Your task to perform on an android device: open a bookmark in the chrome app Image 0: 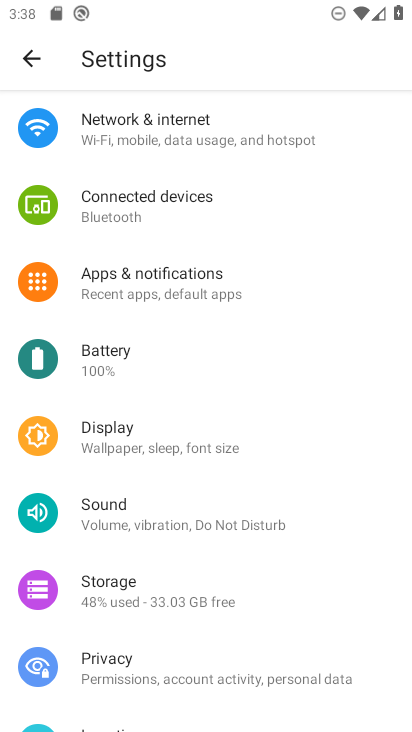
Step 0: press home button
Your task to perform on an android device: open a bookmark in the chrome app Image 1: 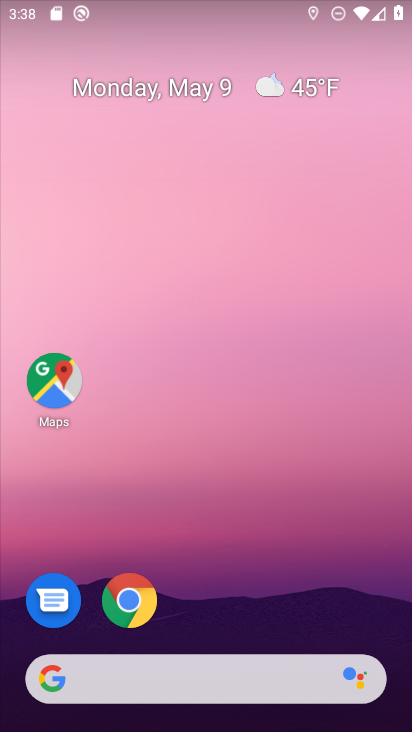
Step 1: click (133, 604)
Your task to perform on an android device: open a bookmark in the chrome app Image 2: 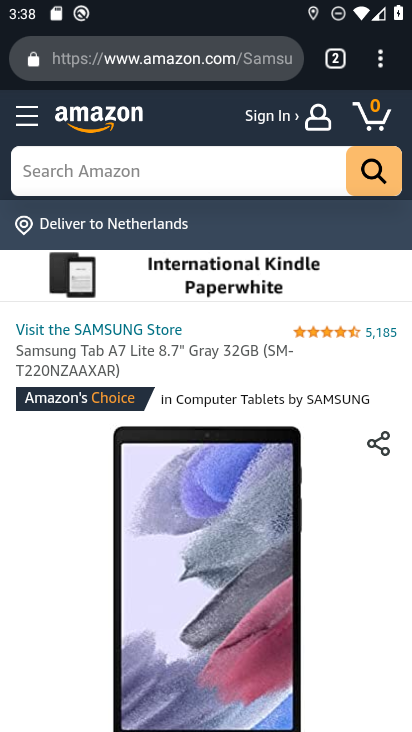
Step 2: click (393, 61)
Your task to perform on an android device: open a bookmark in the chrome app Image 3: 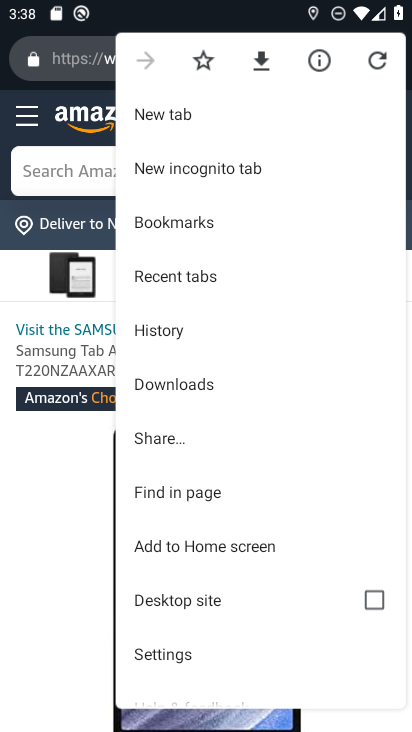
Step 3: click (194, 233)
Your task to perform on an android device: open a bookmark in the chrome app Image 4: 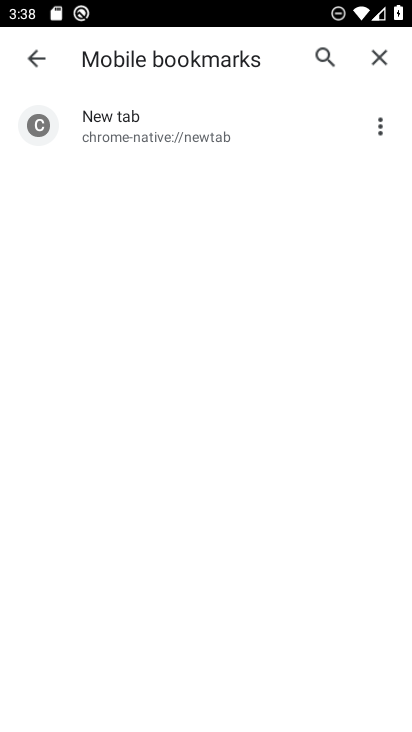
Step 4: click (187, 137)
Your task to perform on an android device: open a bookmark in the chrome app Image 5: 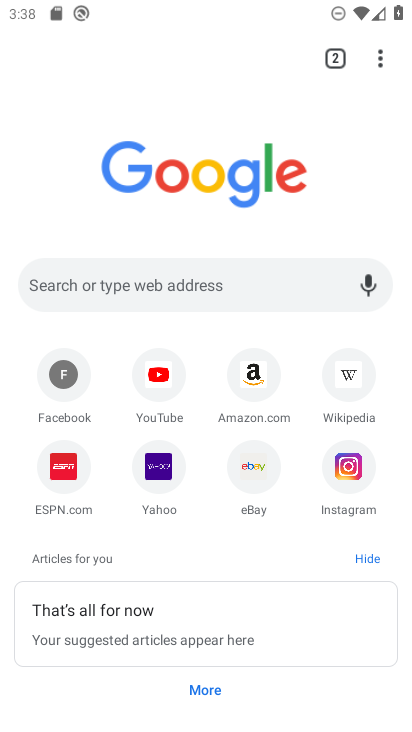
Step 5: task complete